Your task to perform on an android device: See recent photos Image 0: 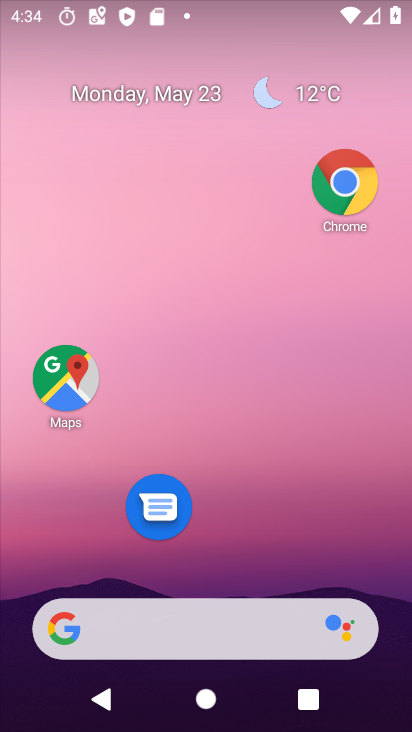
Step 0: drag from (115, 557) to (245, 6)
Your task to perform on an android device: See recent photos Image 1: 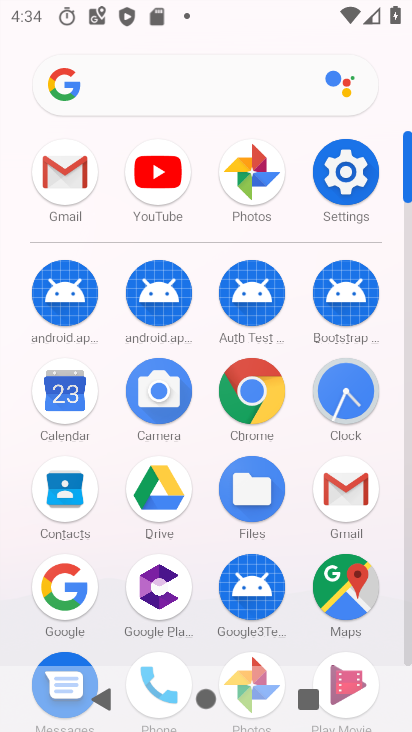
Step 1: click (243, 177)
Your task to perform on an android device: See recent photos Image 2: 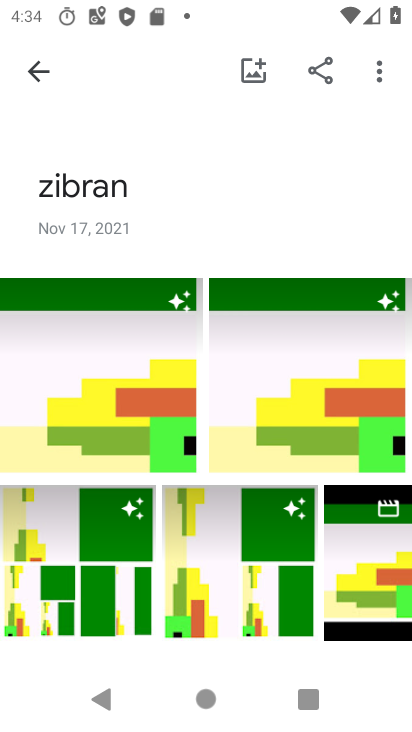
Step 2: click (29, 59)
Your task to perform on an android device: See recent photos Image 3: 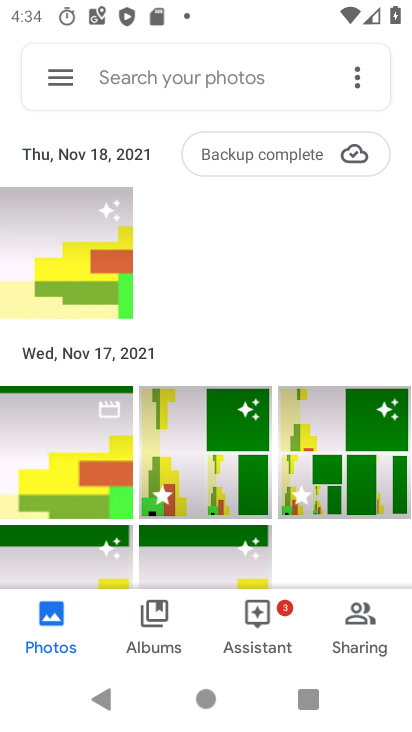
Step 3: task complete